Your task to perform on an android device: open device folders in google photos Image 0: 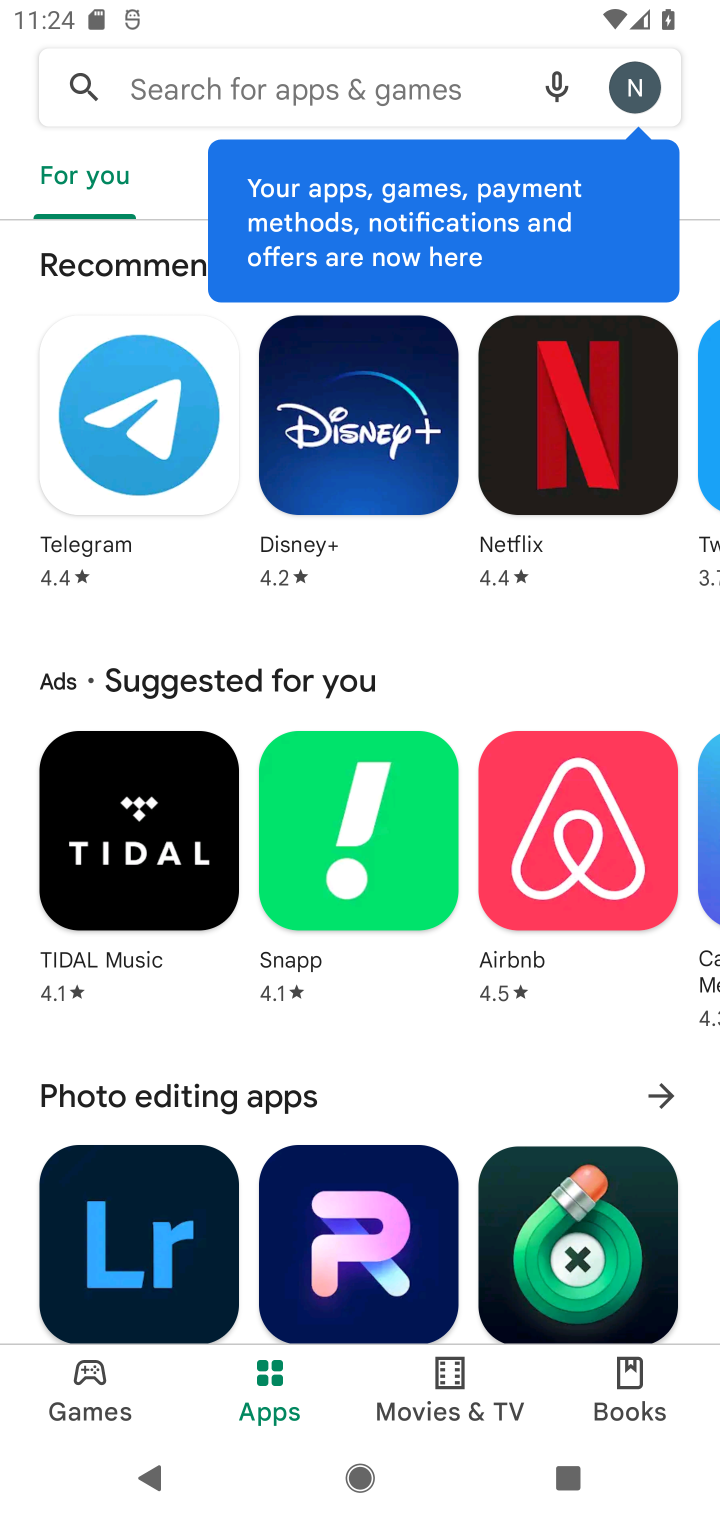
Step 0: task complete